Your task to perform on an android device: Turn on the flashlight Image 0: 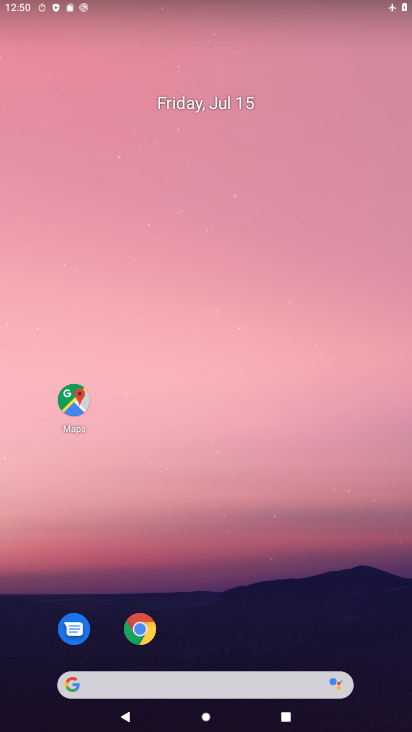
Step 0: drag from (228, 628) to (361, 6)
Your task to perform on an android device: Turn on the flashlight Image 1: 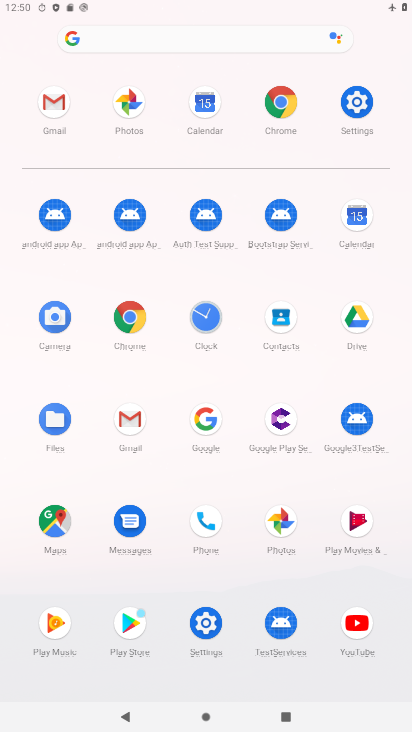
Step 1: click (357, 155)
Your task to perform on an android device: Turn on the flashlight Image 2: 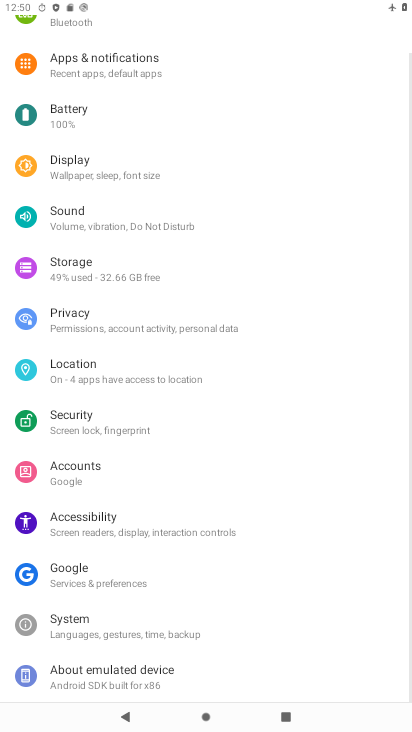
Step 2: drag from (221, 128) to (212, 488)
Your task to perform on an android device: Turn on the flashlight Image 3: 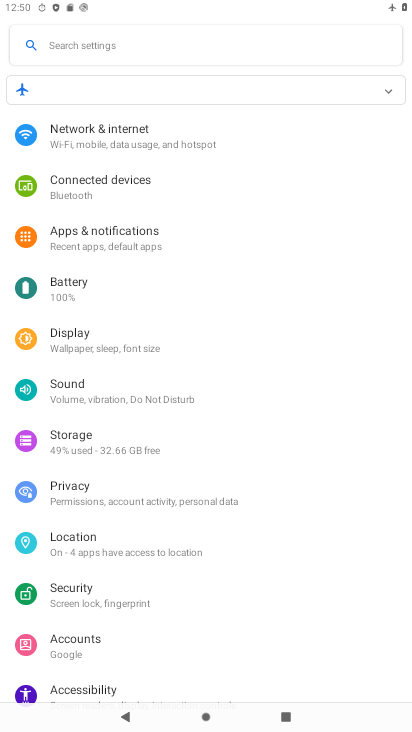
Step 3: click (201, 42)
Your task to perform on an android device: Turn on the flashlight Image 4: 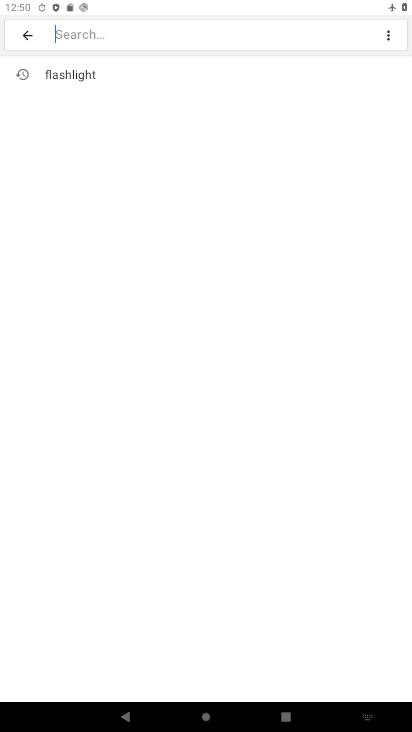
Step 4: type "flashlight"
Your task to perform on an android device: Turn on the flashlight Image 5: 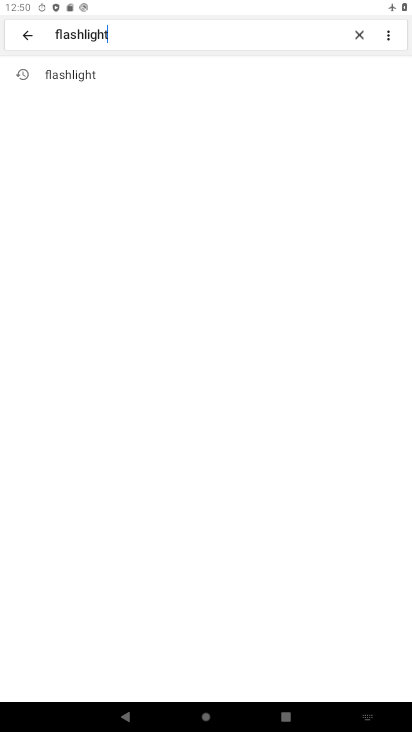
Step 5: click (60, 79)
Your task to perform on an android device: Turn on the flashlight Image 6: 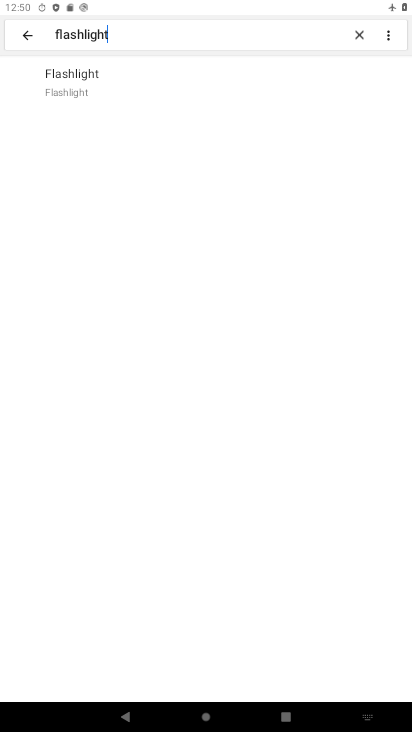
Step 6: click (53, 84)
Your task to perform on an android device: Turn on the flashlight Image 7: 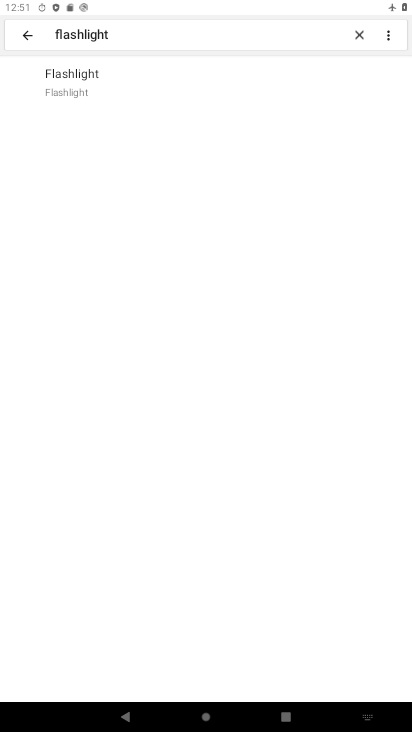
Step 7: task complete